Your task to perform on an android device: change the upload size in google photos Image 0: 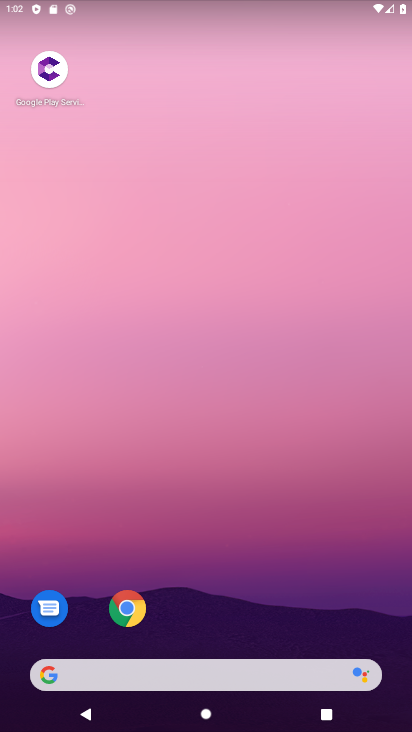
Step 0: press home button
Your task to perform on an android device: change the upload size in google photos Image 1: 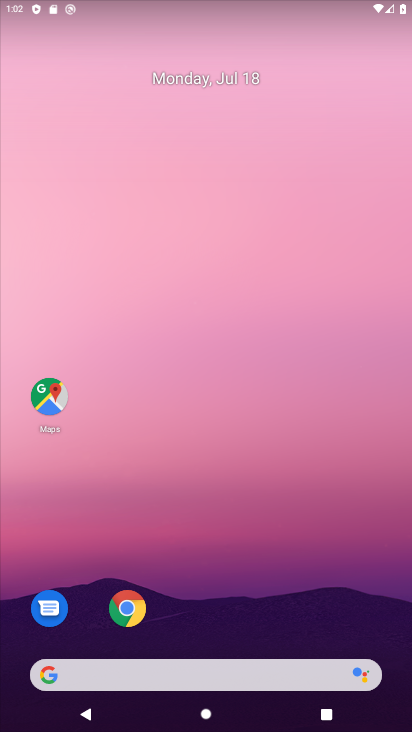
Step 1: drag from (289, 575) to (405, 99)
Your task to perform on an android device: change the upload size in google photos Image 2: 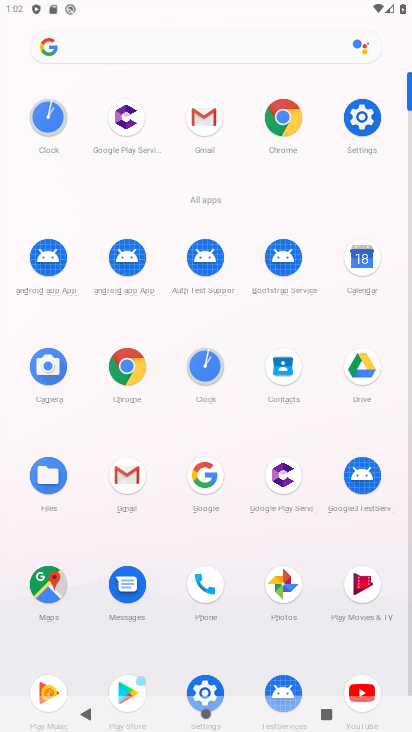
Step 2: click (290, 584)
Your task to perform on an android device: change the upload size in google photos Image 3: 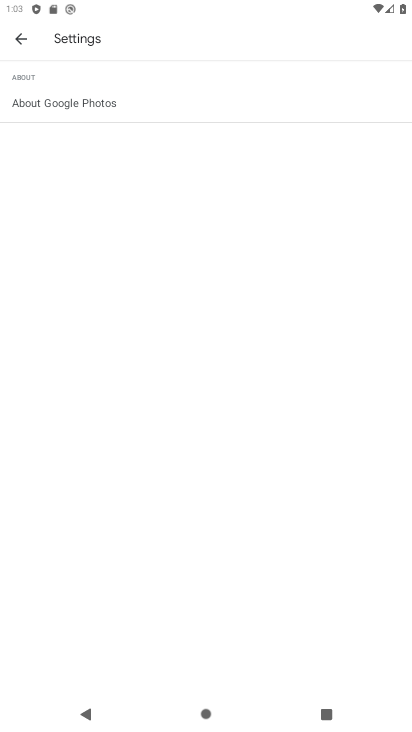
Step 3: click (18, 37)
Your task to perform on an android device: change the upload size in google photos Image 4: 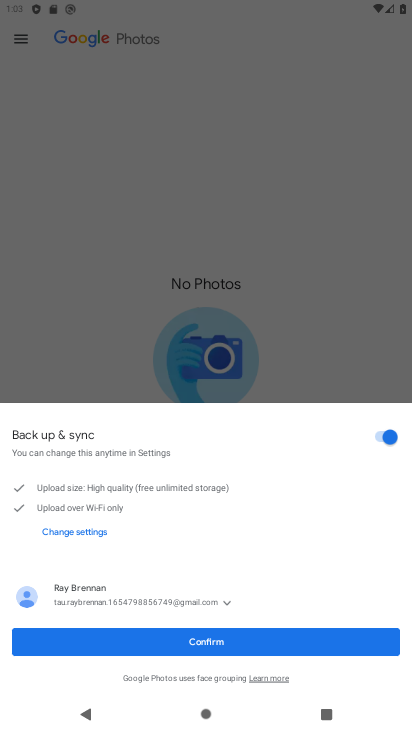
Step 4: click (216, 638)
Your task to perform on an android device: change the upload size in google photos Image 5: 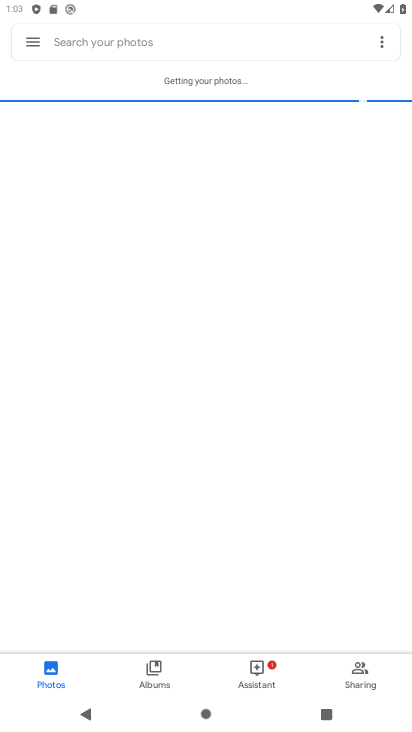
Step 5: click (35, 34)
Your task to perform on an android device: change the upload size in google photos Image 6: 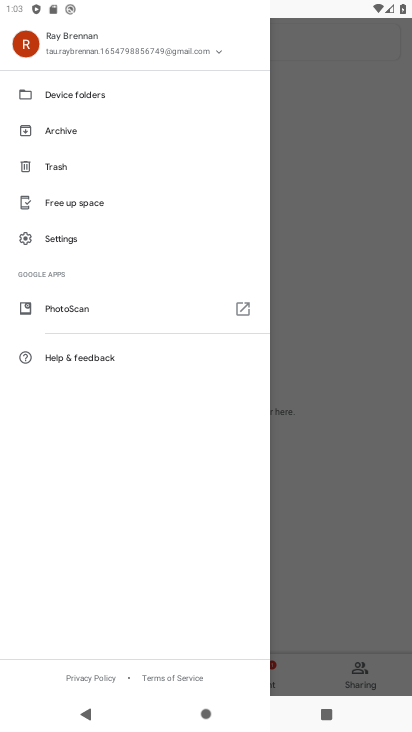
Step 6: click (58, 245)
Your task to perform on an android device: change the upload size in google photos Image 7: 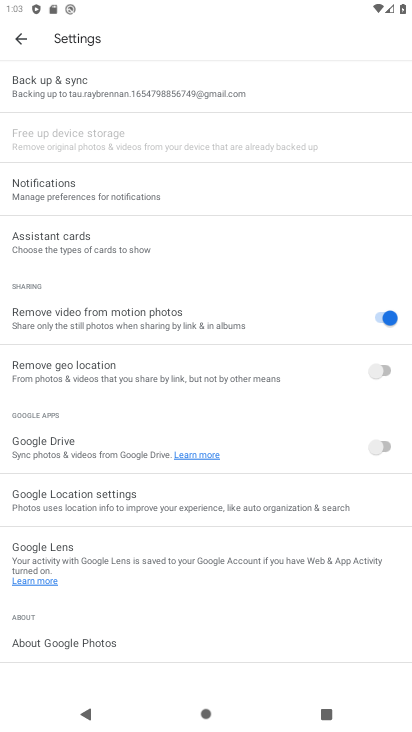
Step 7: click (152, 70)
Your task to perform on an android device: change the upload size in google photos Image 8: 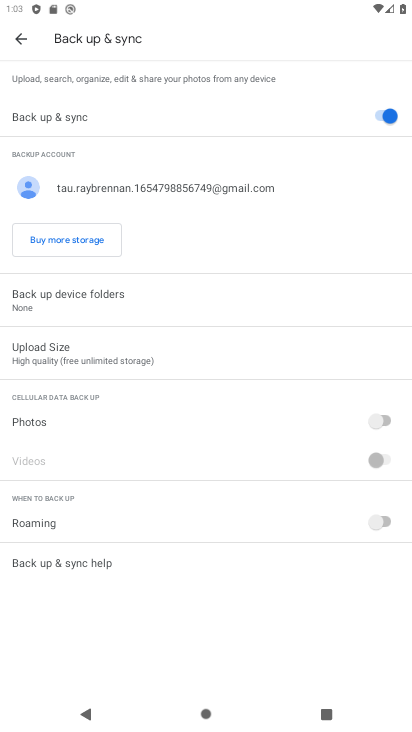
Step 8: click (143, 364)
Your task to perform on an android device: change the upload size in google photos Image 9: 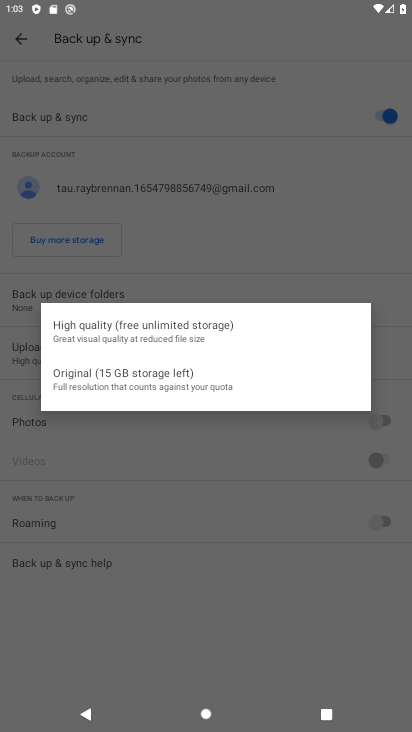
Step 9: click (150, 379)
Your task to perform on an android device: change the upload size in google photos Image 10: 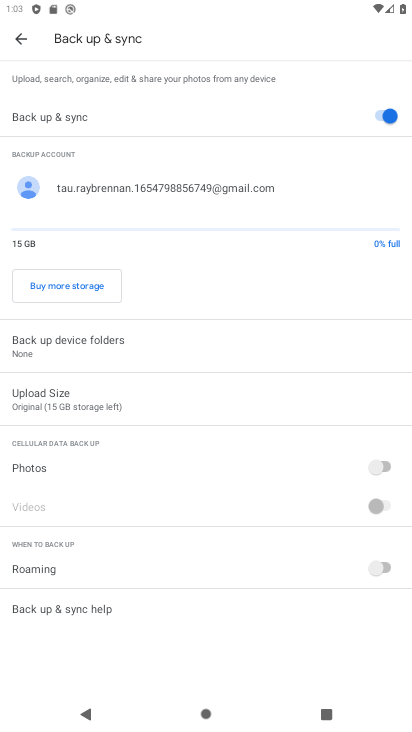
Step 10: task complete